Your task to perform on an android device: Open ESPN.com Image 0: 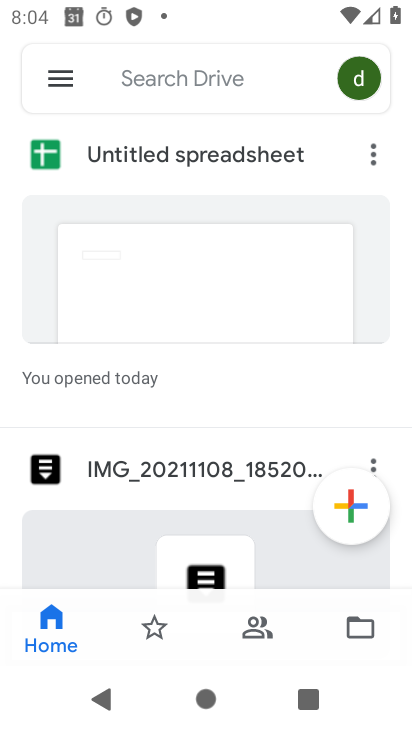
Step 0: press home button
Your task to perform on an android device: Open ESPN.com Image 1: 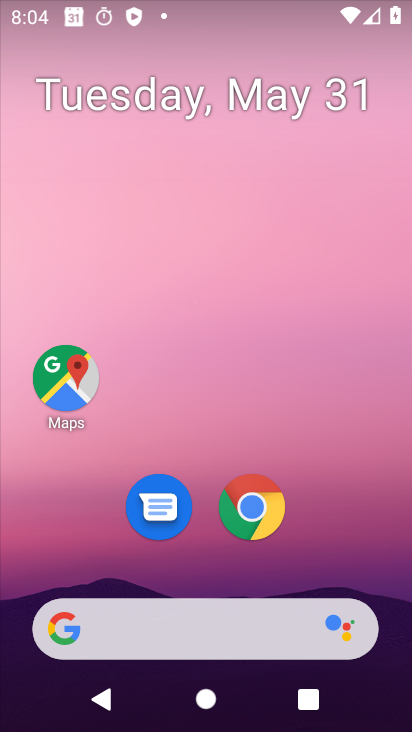
Step 1: click (253, 513)
Your task to perform on an android device: Open ESPN.com Image 2: 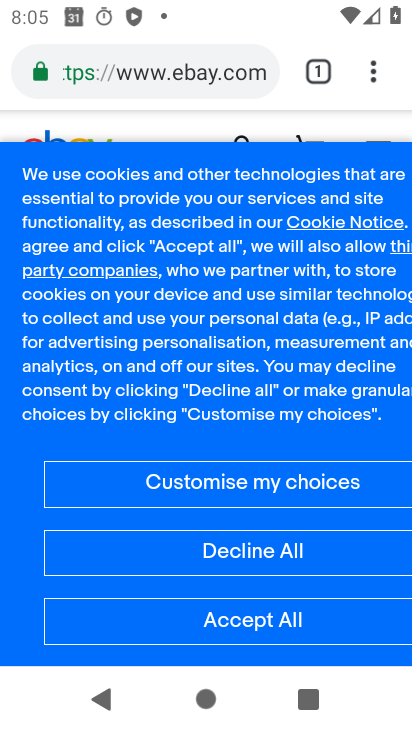
Step 2: click (186, 71)
Your task to perform on an android device: Open ESPN.com Image 3: 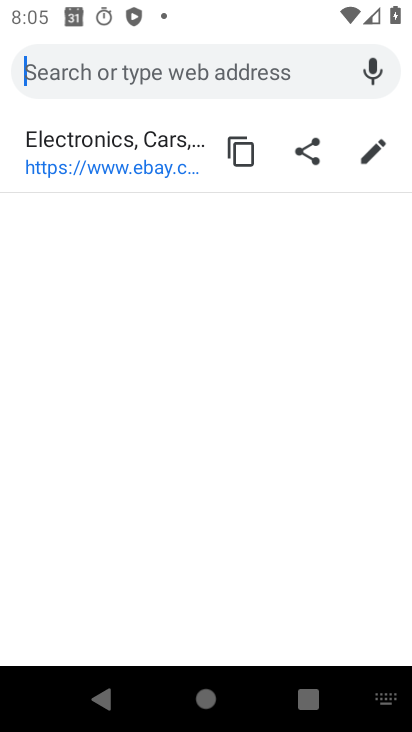
Step 3: type "espn.com"
Your task to perform on an android device: Open ESPN.com Image 4: 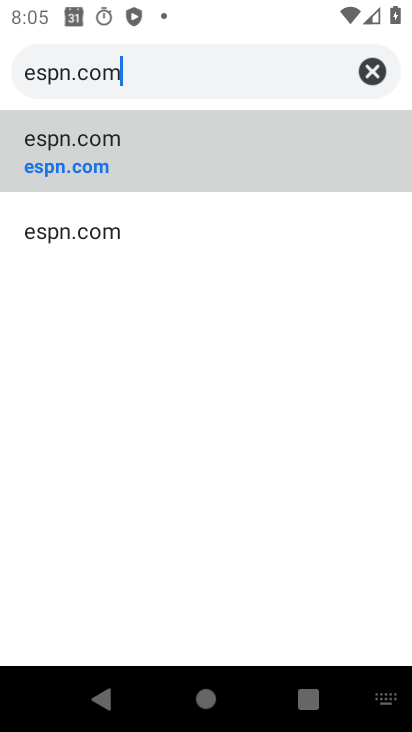
Step 4: click (86, 163)
Your task to perform on an android device: Open ESPN.com Image 5: 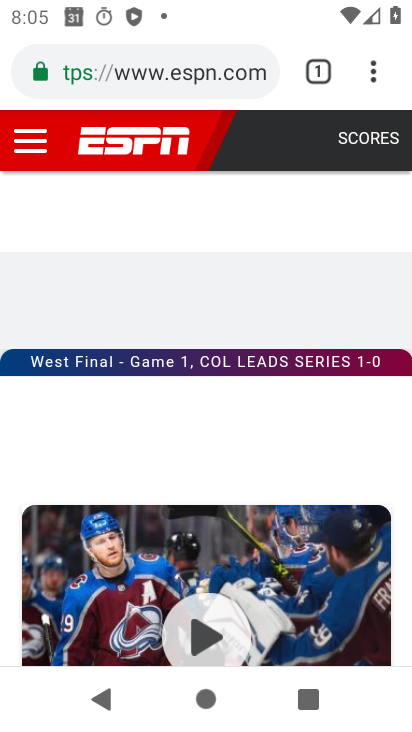
Step 5: task complete